Your task to perform on an android device: Go to sound settings Image 0: 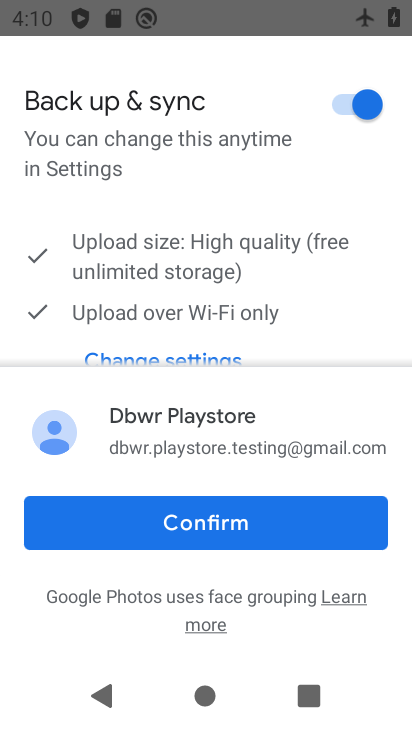
Step 0: press home button
Your task to perform on an android device: Go to sound settings Image 1: 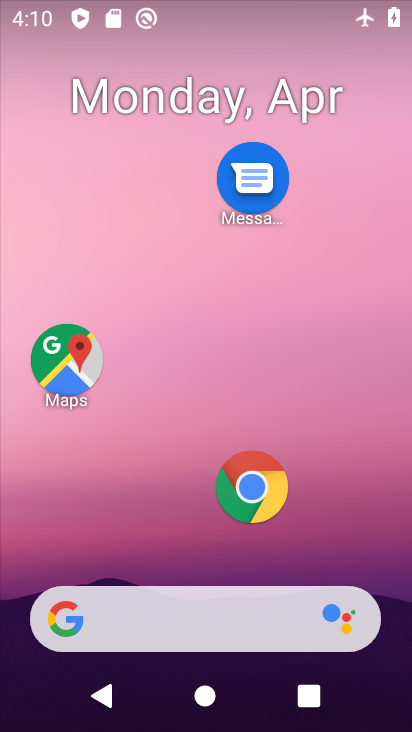
Step 1: drag from (131, 545) to (265, 68)
Your task to perform on an android device: Go to sound settings Image 2: 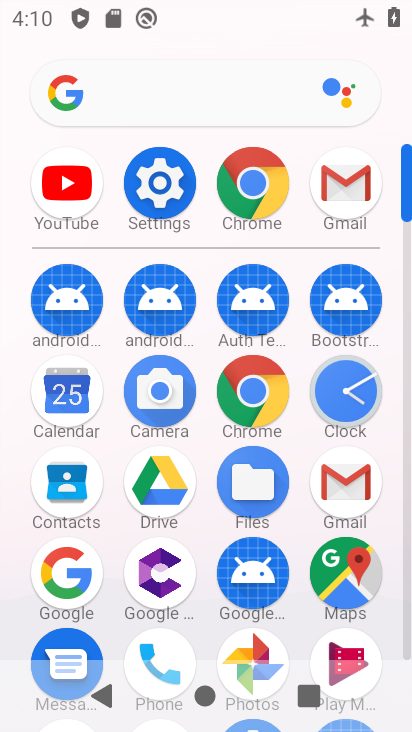
Step 2: click (154, 186)
Your task to perform on an android device: Go to sound settings Image 3: 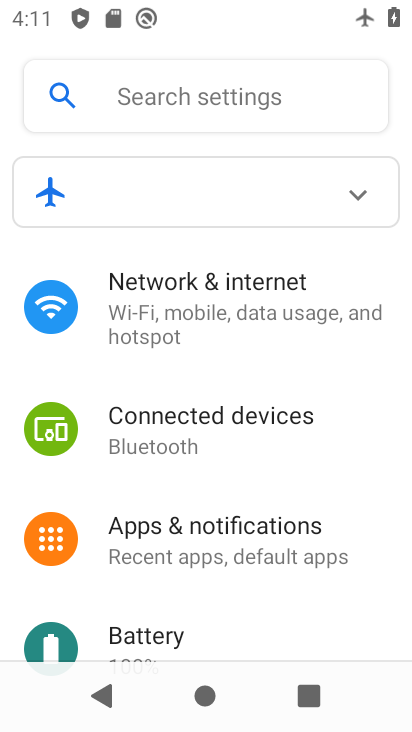
Step 3: drag from (204, 588) to (371, 171)
Your task to perform on an android device: Go to sound settings Image 4: 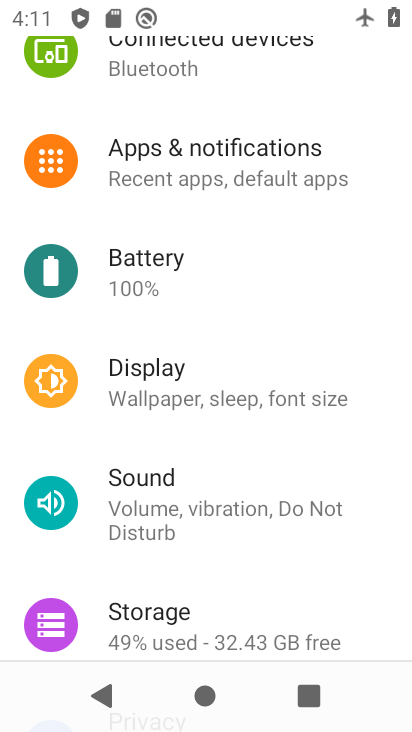
Step 4: click (237, 521)
Your task to perform on an android device: Go to sound settings Image 5: 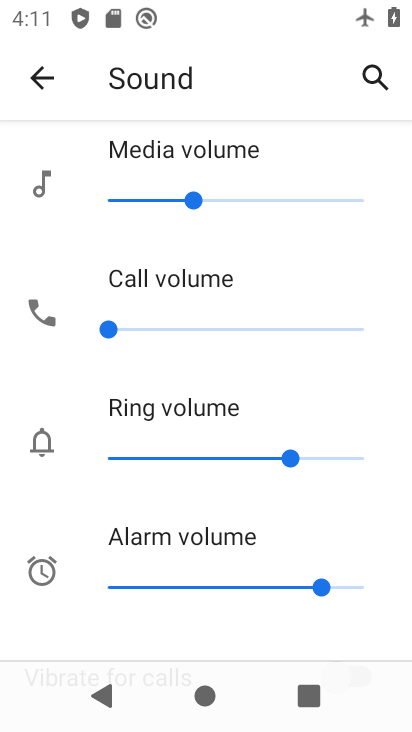
Step 5: task complete